Your task to perform on an android device: Open eBay Image 0: 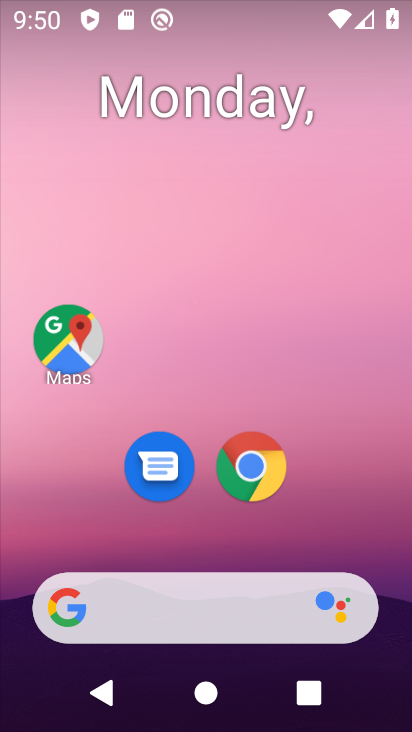
Step 0: click (255, 460)
Your task to perform on an android device: Open eBay Image 1: 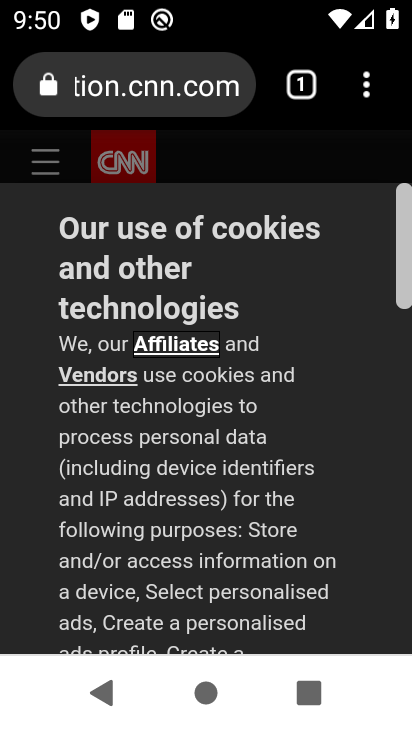
Step 1: click (124, 82)
Your task to perform on an android device: Open eBay Image 2: 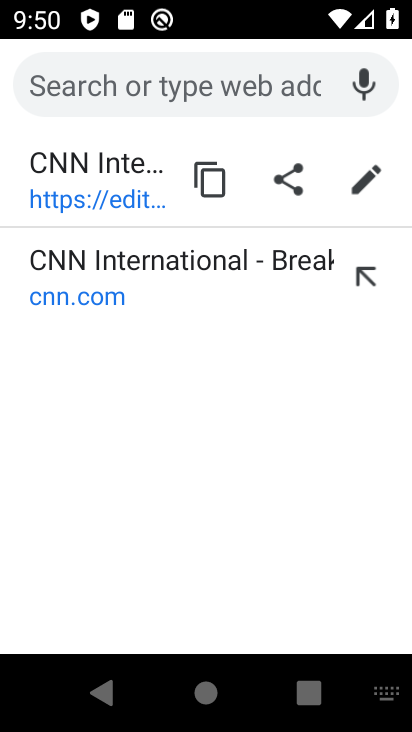
Step 2: type "eBay"
Your task to perform on an android device: Open eBay Image 3: 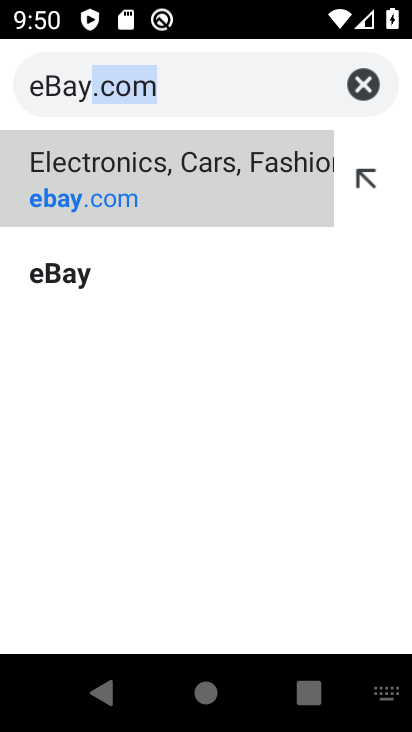
Step 3: click (77, 274)
Your task to perform on an android device: Open eBay Image 4: 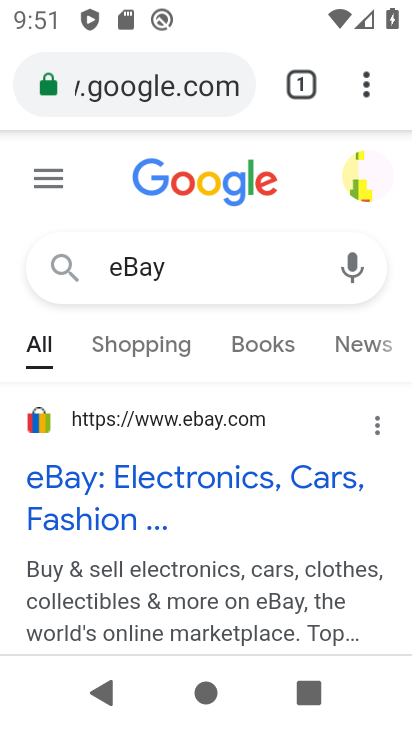
Step 4: task complete